Your task to perform on an android device: create a new album in the google photos Image 0: 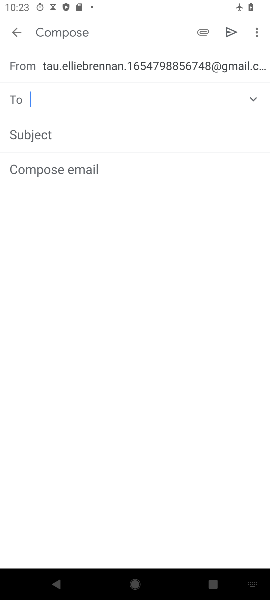
Step 0: press home button
Your task to perform on an android device: create a new album in the google photos Image 1: 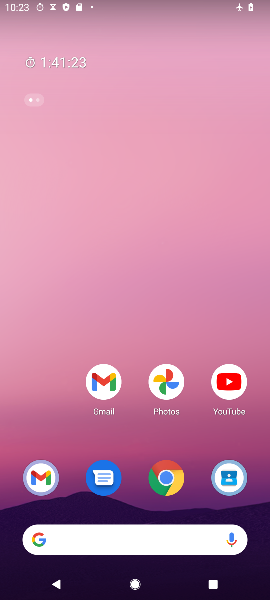
Step 1: drag from (112, 441) to (177, 22)
Your task to perform on an android device: create a new album in the google photos Image 2: 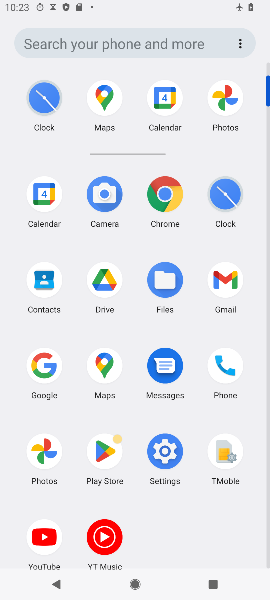
Step 2: click (48, 447)
Your task to perform on an android device: create a new album in the google photos Image 3: 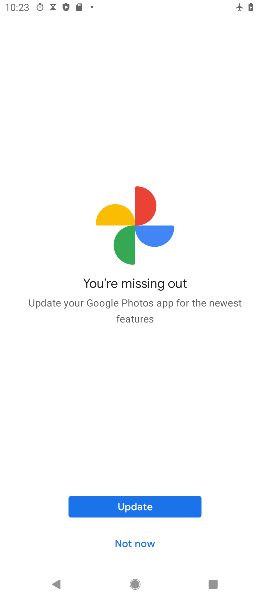
Step 3: click (123, 536)
Your task to perform on an android device: create a new album in the google photos Image 4: 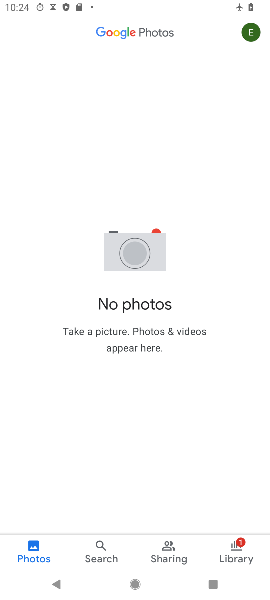
Step 4: press home button
Your task to perform on an android device: create a new album in the google photos Image 5: 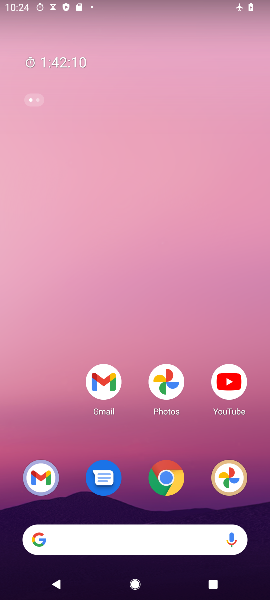
Step 5: drag from (141, 500) to (201, 126)
Your task to perform on an android device: create a new album in the google photos Image 6: 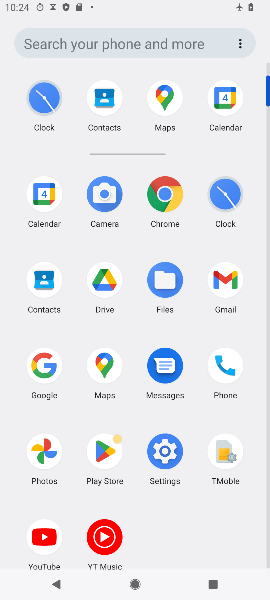
Step 6: click (44, 447)
Your task to perform on an android device: create a new album in the google photos Image 7: 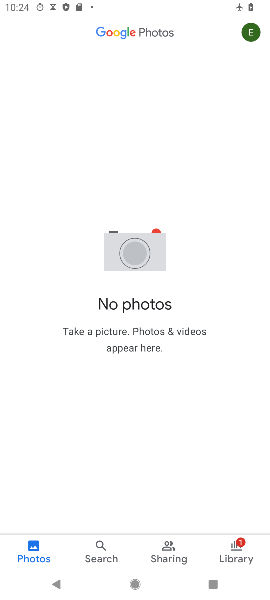
Step 7: task complete